Your task to perform on an android device: open app "Adobe Acrobat Reader: Edit PDF" (install if not already installed) Image 0: 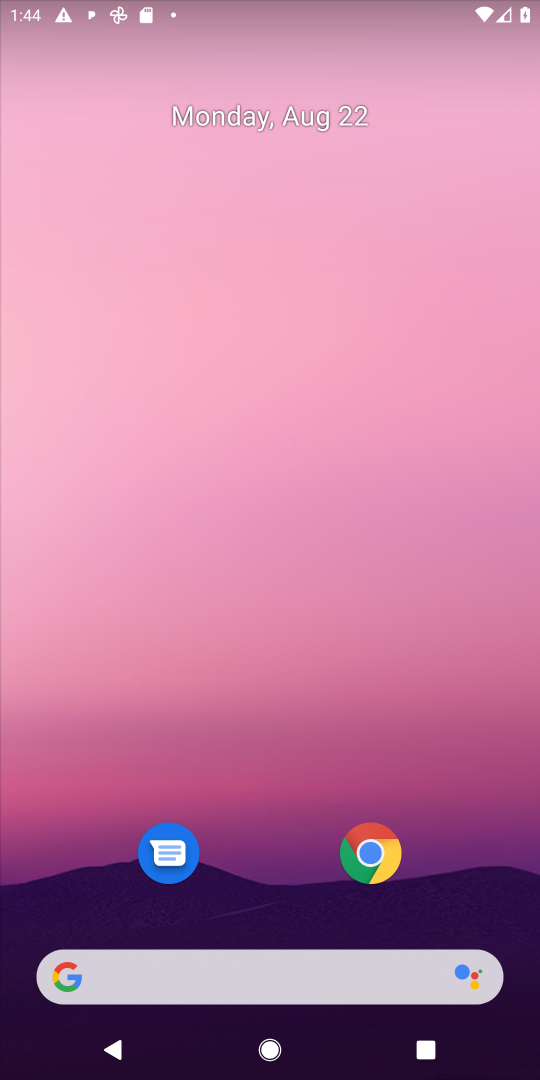
Step 0: drag from (214, 949) to (368, 269)
Your task to perform on an android device: open app "Adobe Acrobat Reader: Edit PDF" (install if not already installed) Image 1: 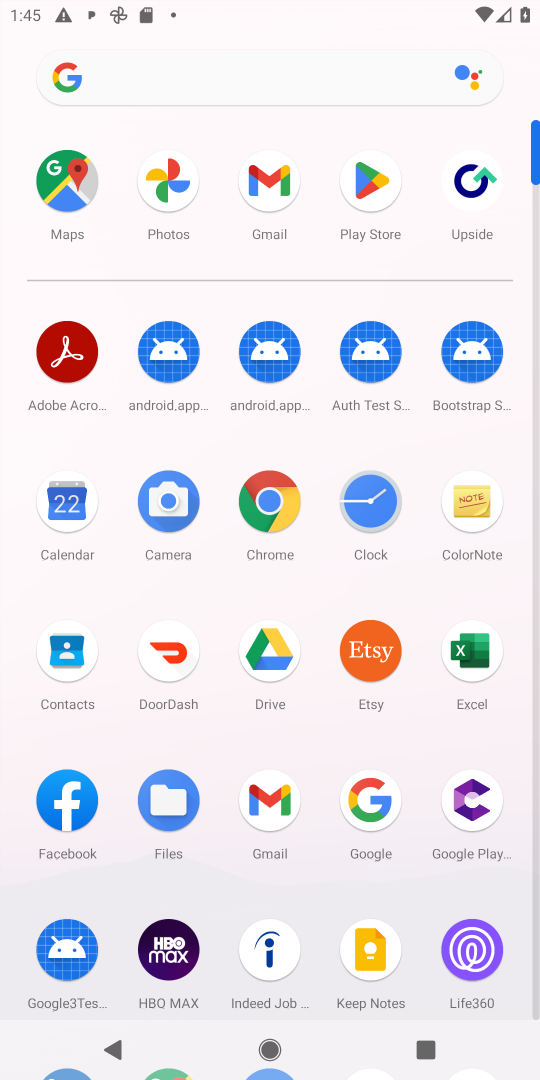
Step 1: click (368, 177)
Your task to perform on an android device: open app "Adobe Acrobat Reader: Edit PDF" (install if not already installed) Image 2: 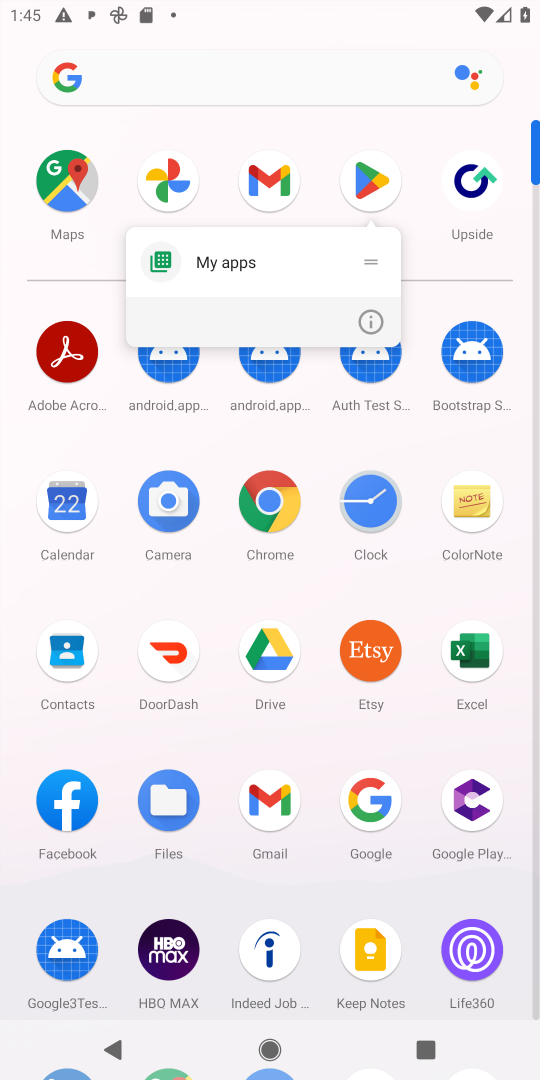
Step 2: click (361, 169)
Your task to perform on an android device: open app "Adobe Acrobat Reader: Edit PDF" (install if not already installed) Image 3: 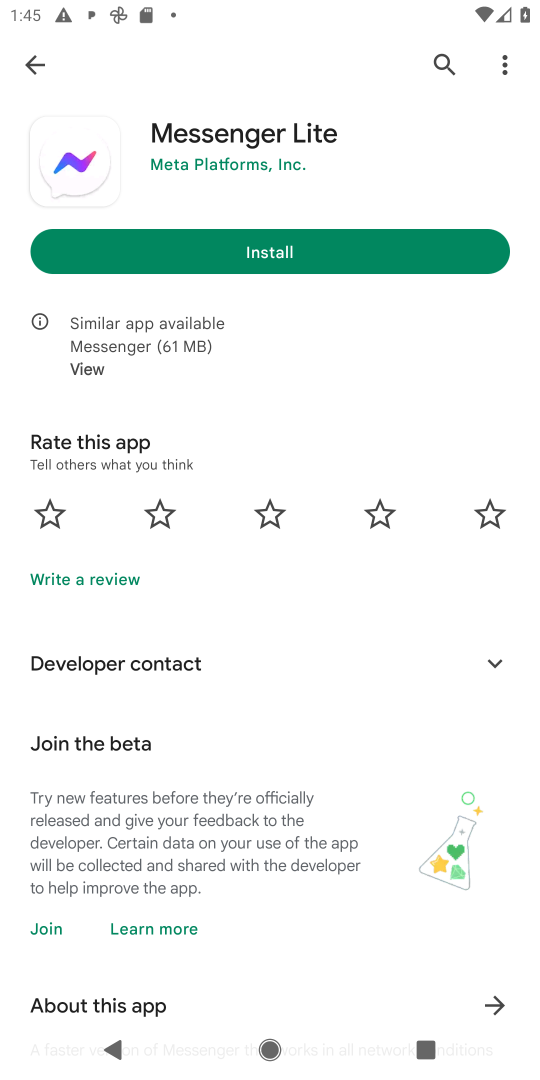
Step 3: click (59, 69)
Your task to perform on an android device: open app "Adobe Acrobat Reader: Edit PDF" (install if not already installed) Image 4: 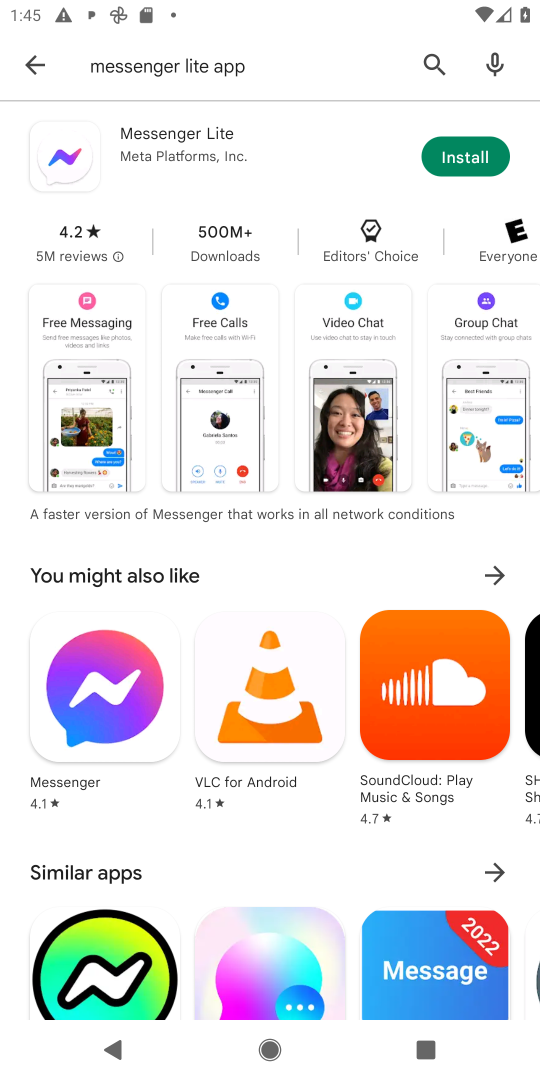
Step 4: click (59, 69)
Your task to perform on an android device: open app "Adobe Acrobat Reader: Edit PDF" (install if not already installed) Image 5: 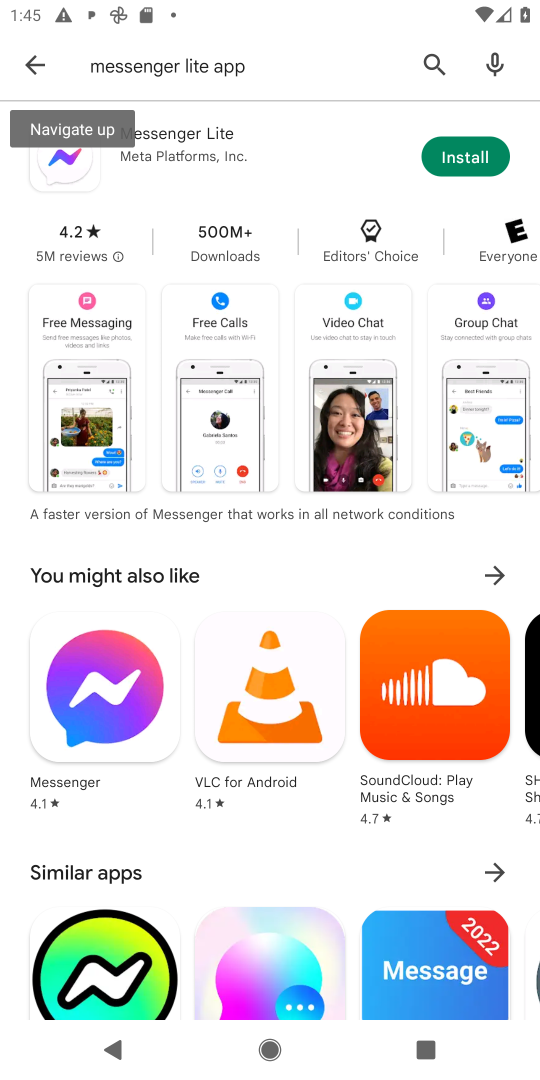
Step 5: click (22, 69)
Your task to perform on an android device: open app "Adobe Acrobat Reader: Edit PDF" (install if not already installed) Image 6: 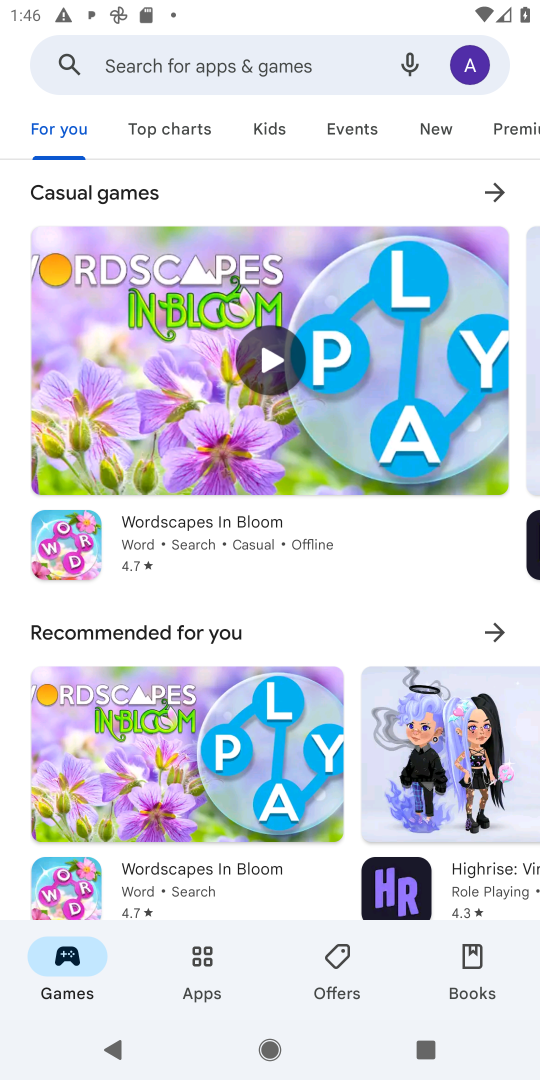
Step 6: click (245, 50)
Your task to perform on an android device: open app "Adobe Acrobat Reader: Edit PDF" (install if not already installed) Image 7: 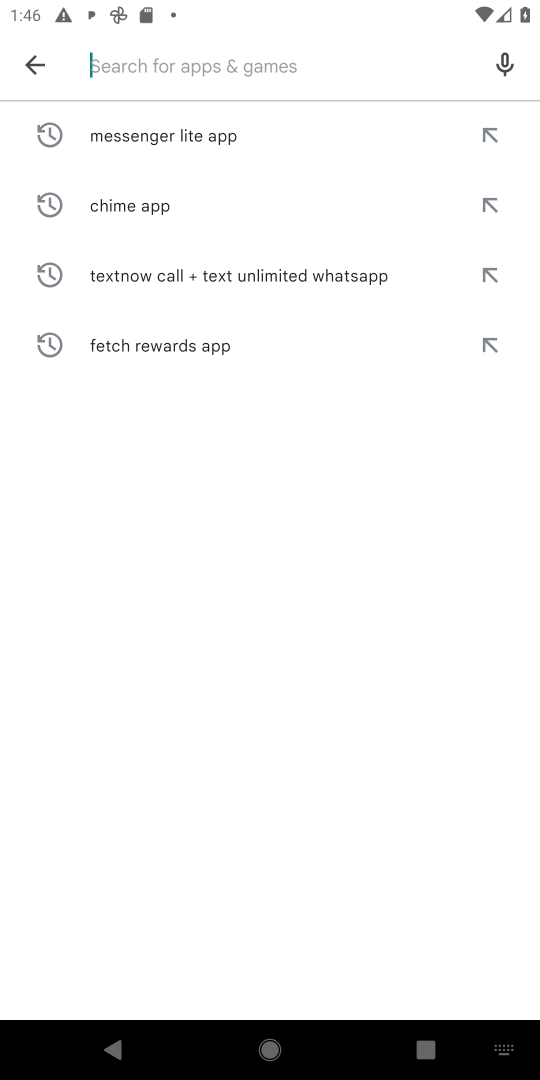
Step 7: type "Adobe Acrobat Reader: Edit PDF "
Your task to perform on an android device: open app "Adobe Acrobat Reader: Edit PDF" (install if not already installed) Image 8: 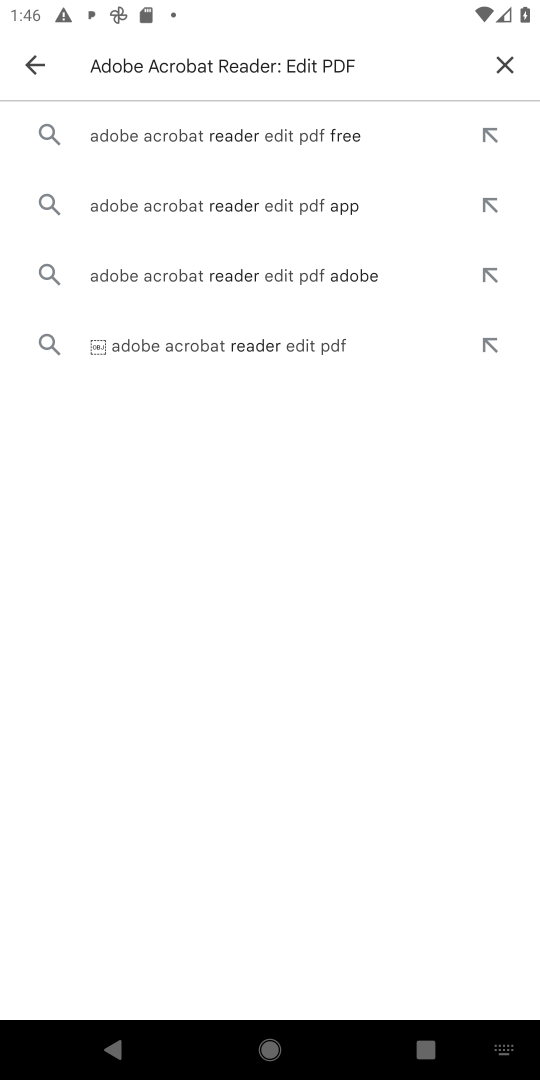
Step 8: click (91, 129)
Your task to perform on an android device: open app "Adobe Acrobat Reader: Edit PDF" (install if not already installed) Image 9: 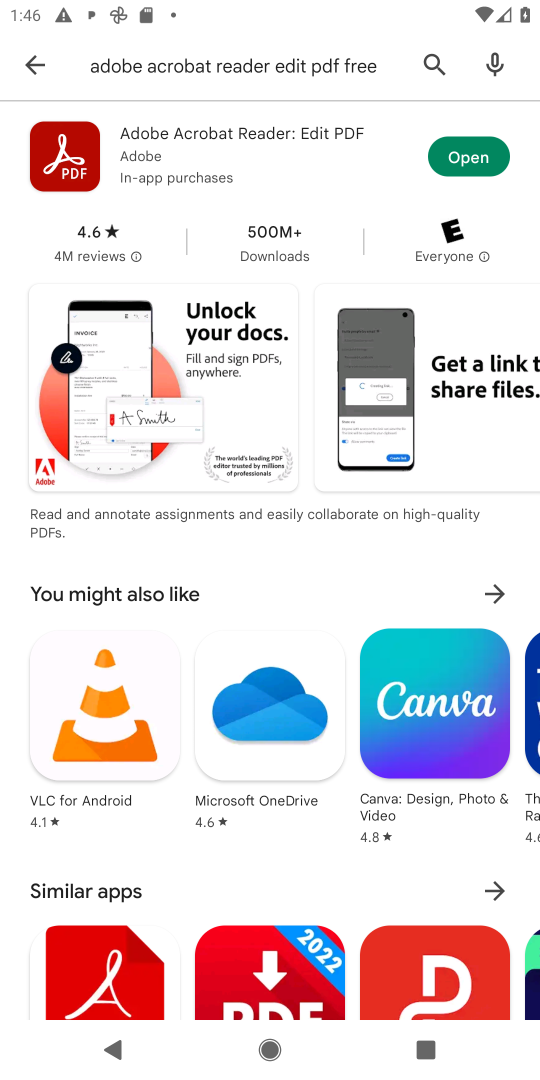
Step 9: click (436, 122)
Your task to perform on an android device: open app "Adobe Acrobat Reader: Edit PDF" (install if not already installed) Image 10: 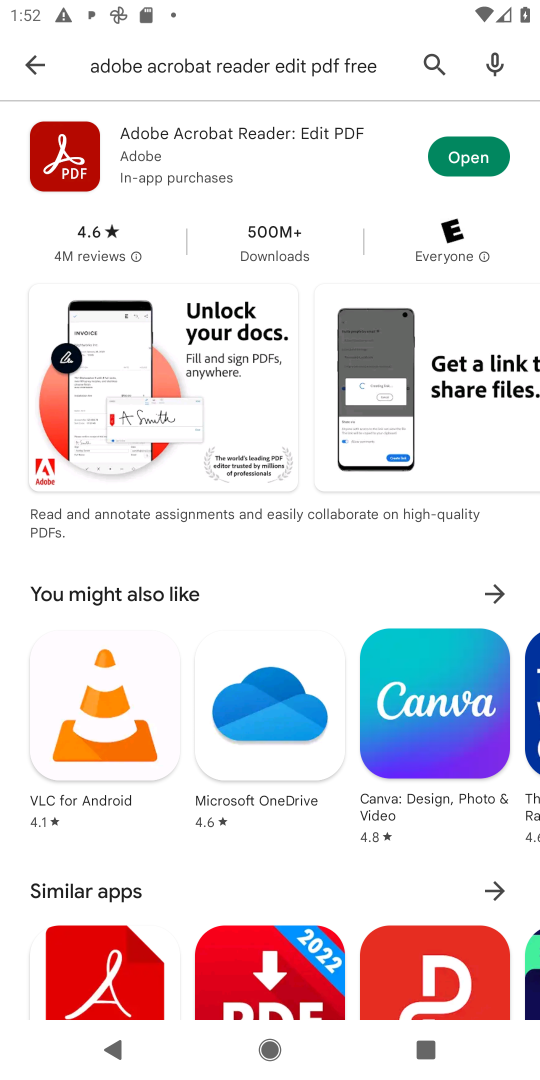
Step 10: click (461, 149)
Your task to perform on an android device: open app "Adobe Acrobat Reader: Edit PDF" (install if not already installed) Image 11: 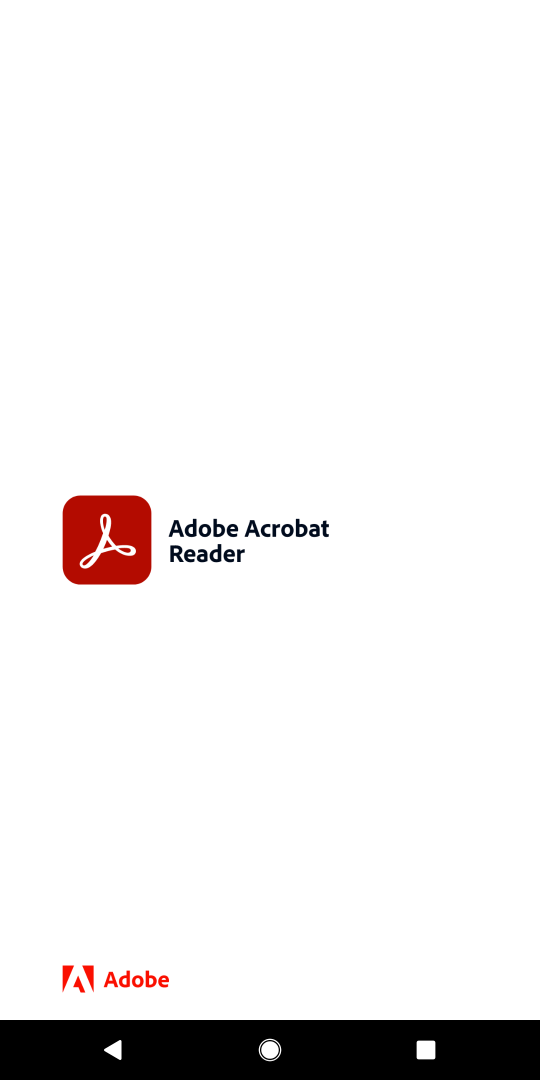
Step 11: task complete